Your task to perform on an android device: Open Google Maps and go to "Timeline" Image 0: 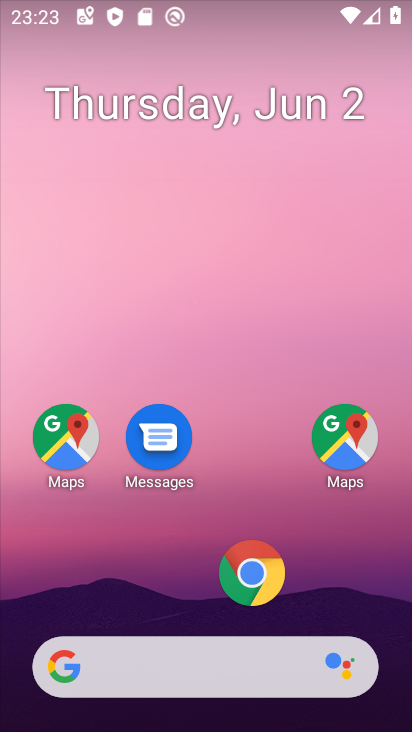
Step 0: click (47, 443)
Your task to perform on an android device: Open Google Maps and go to "Timeline" Image 1: 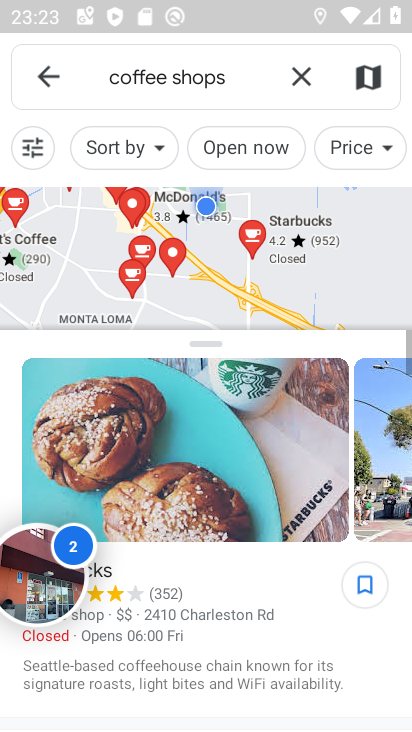
Step 1: click (308, 68)
Your task to perform on an android device: Open Google Maps and go to "Timeline" Image 2: 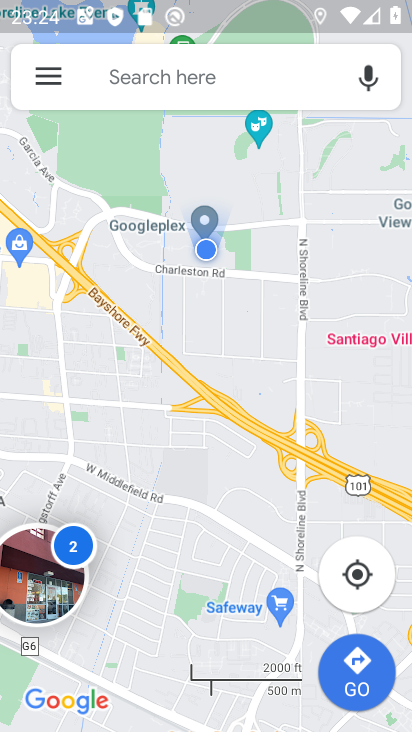
Step 2: click (172, 63)
Your task to perform on an android device: Open Google Maps and go to "Timeline" Image 3: 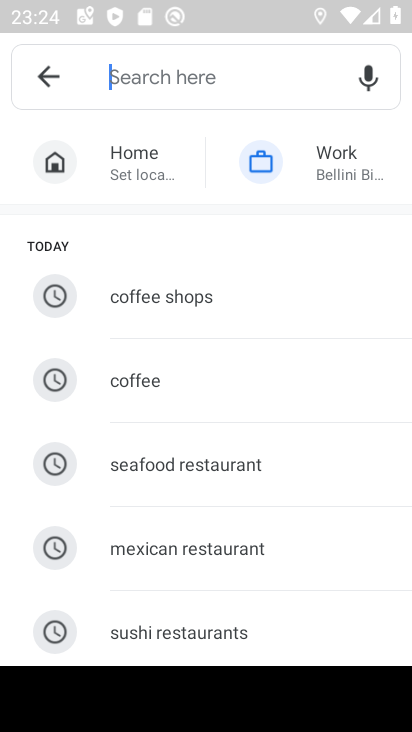
Step 3: type "Timeline"
Your task to perform on an android device: Open Google Maps and go to "Timeline" Image 4: 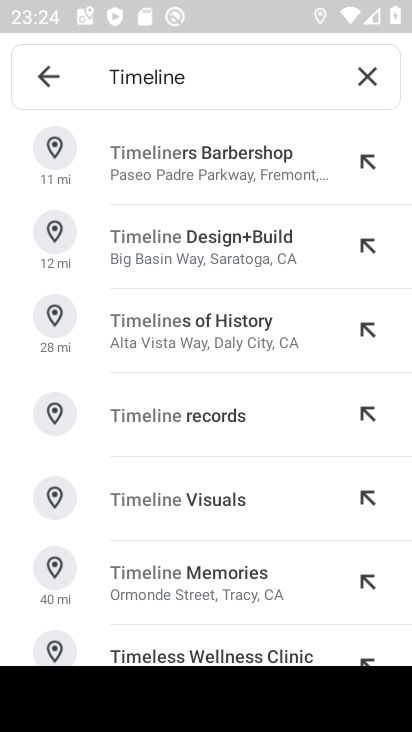
Step 4: click (141, 167)
Your task to perform on an android device: Open Google Maps and go to "Timeline" Image 5: 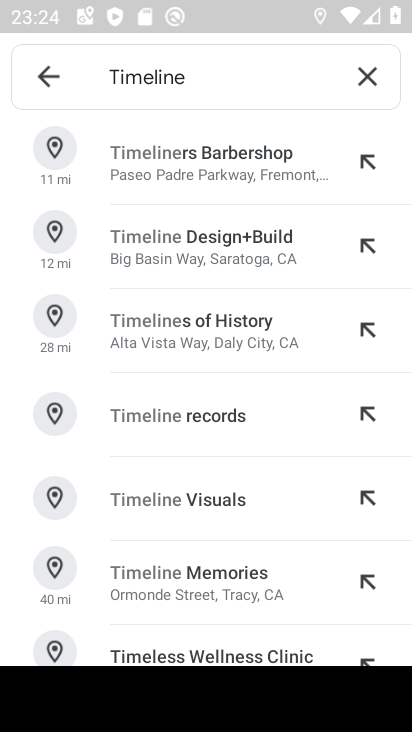
Step 5: click (141, 168)
Your task to perform on an android device: Open Google Maps and go to "Timeline" Image 6: 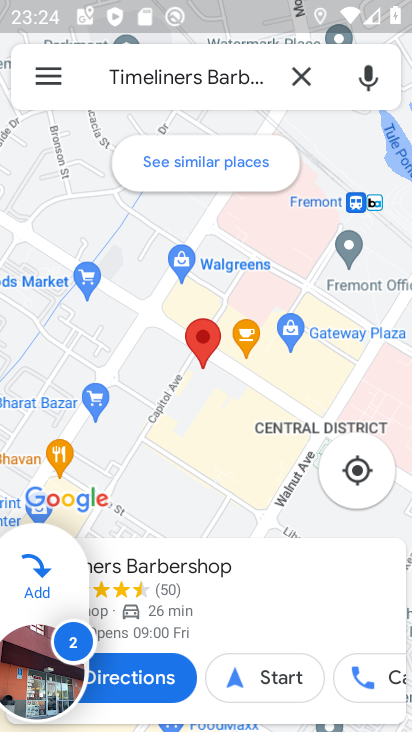
Step 6: task complete